Your task to perform on an android device: Open Wikipedia Image 0: 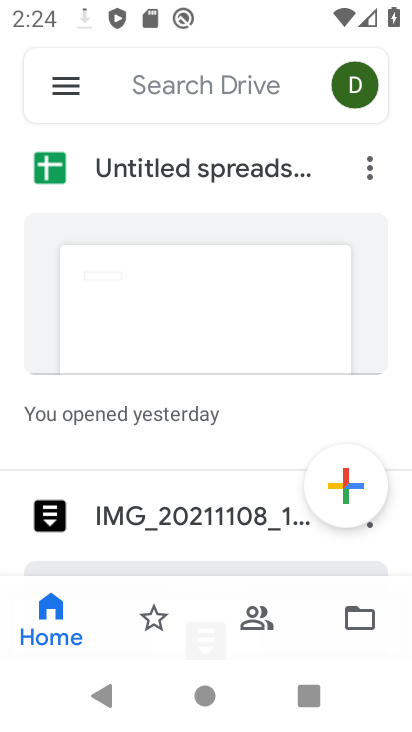
Step 0: press home button
Your task to perform on an android device: Open Wikipedia Image 1: 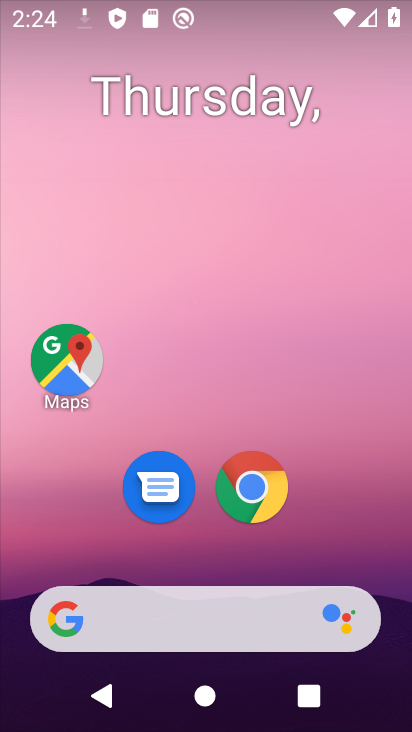
Step 1: click (253, 477)
Your task to perform on an android device: Open Wikipedia Image 2: 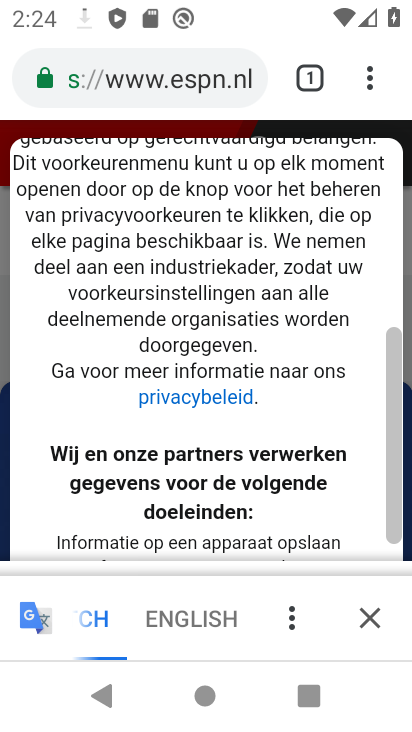
Step 2: click (306, 77)
Your task to perform on an android device: Open Wikipedia Image 3: 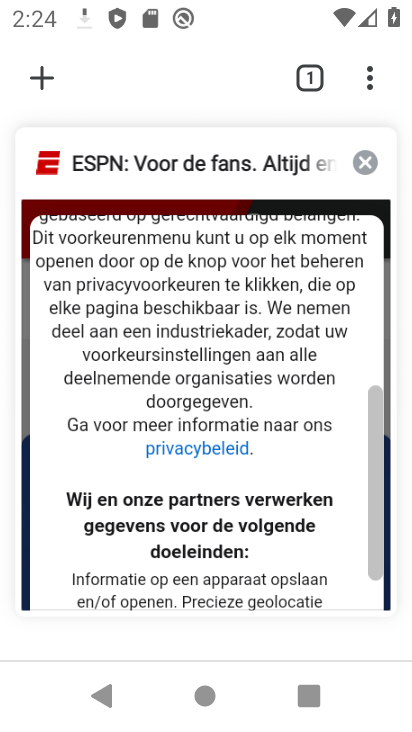
Step 3: click (21, 76)
Your task to perform on an android device: Open Wikipedia Image 4: 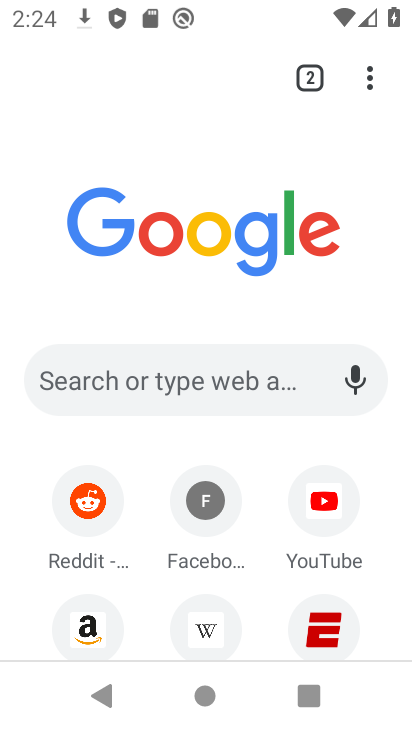
Step 4: click (200, 618)
Your task to perform on an android device: Open Wikipedia Image 5: 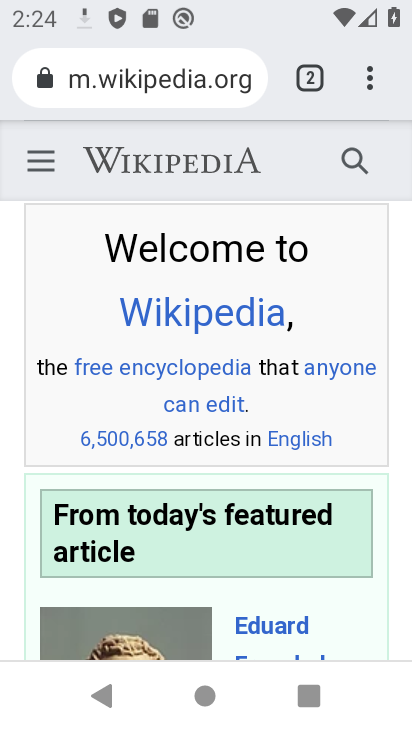
Step 5: task complete